Your task to perform on an android device: delete a single message in the gmail app Image 0: 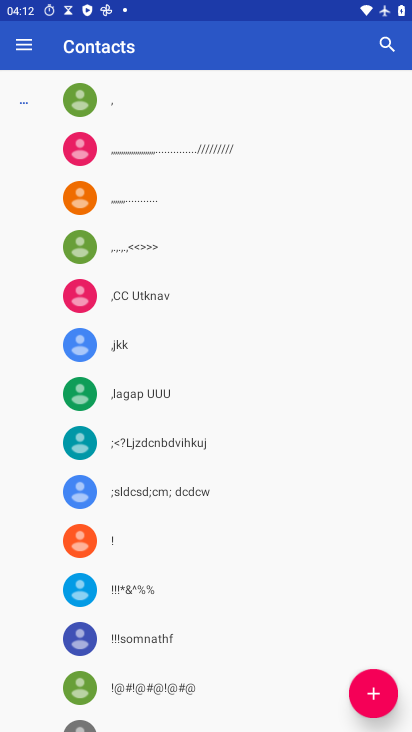
Step 0: press back button
Your task to perform on an android device: delete a single message in the gmail app Image 1: 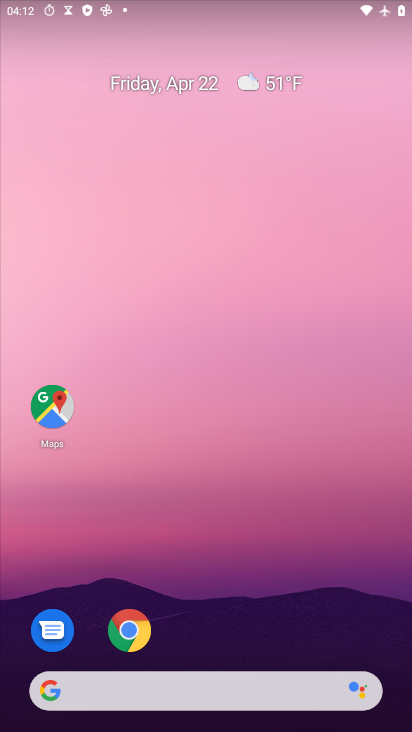
Step 1: drag from (284, 517) to (245, 8)
Your task to perform on an android device: delete a single message in the gmail app Image 2: 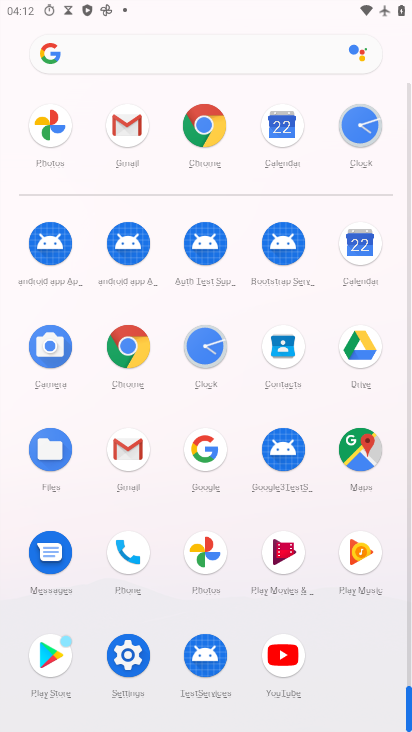
Step 2: drag from (11, 535) to (32, 319)
Your task to perform on an android device: delete a single message in the gmail app Image 3: 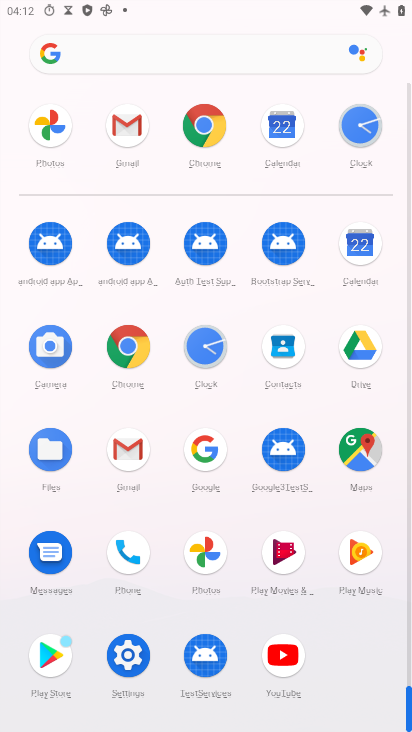
Step 3: click (124, 441)
Your task to perform on an android device: delete a single message in the gmail app Image 4: 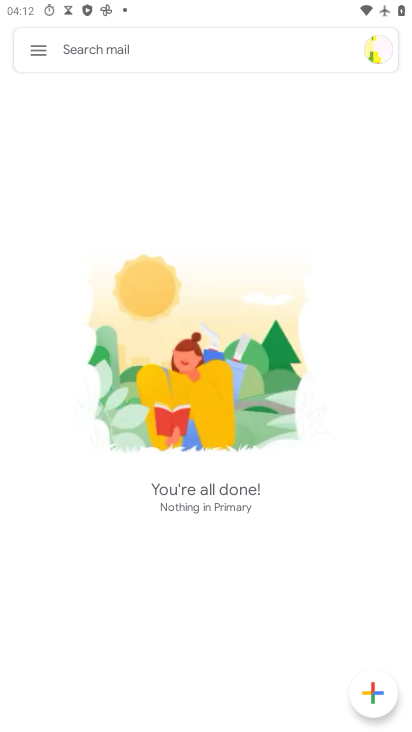
Step 4: click (45, 44)
Your task to perform on an android device: delete a single message in the gmail app Image 5: 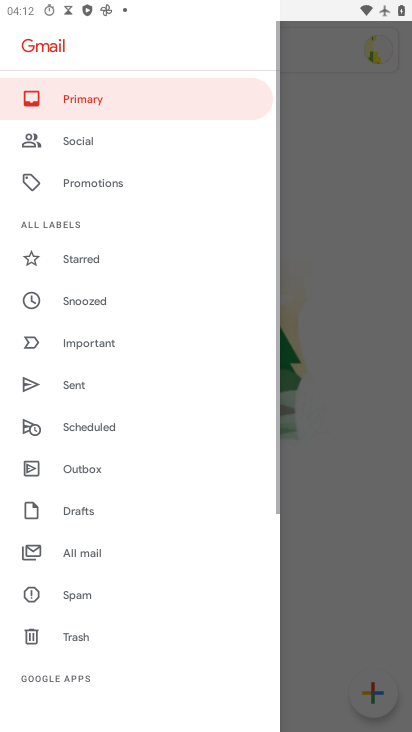
Step 5: drag from (148, 425) to (146, 114)
Your task to perform on an android device: delete a single message in the gmail app Image 6: 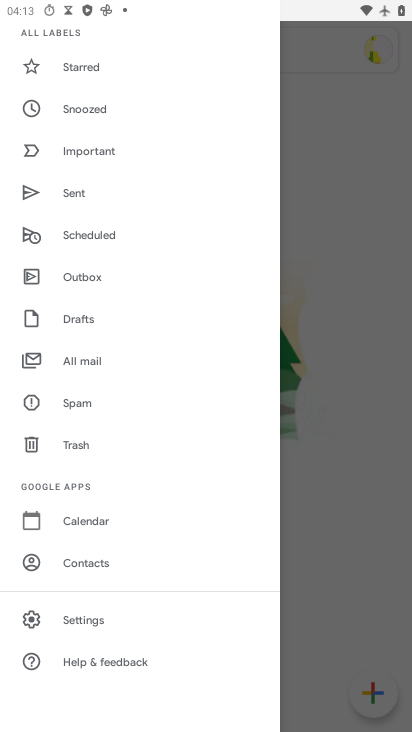
Step 6: click (90, 356)
Your task to perform on an android device: delete a single message in the gmail app Image 7: 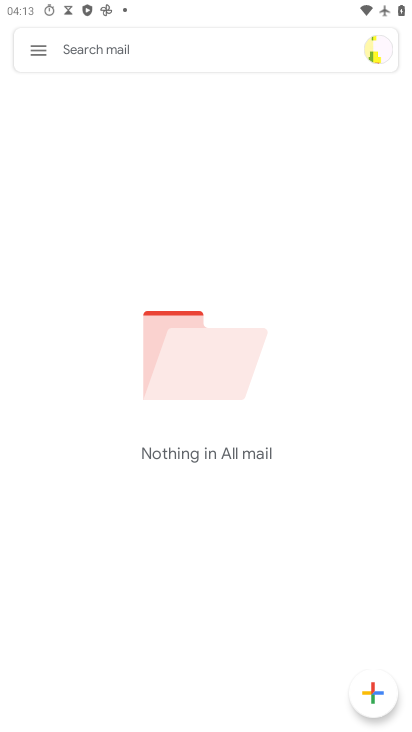
Step 7: click (41, 51)
Your task to perform on an android device: delete a single message in the gmail app Image 8: 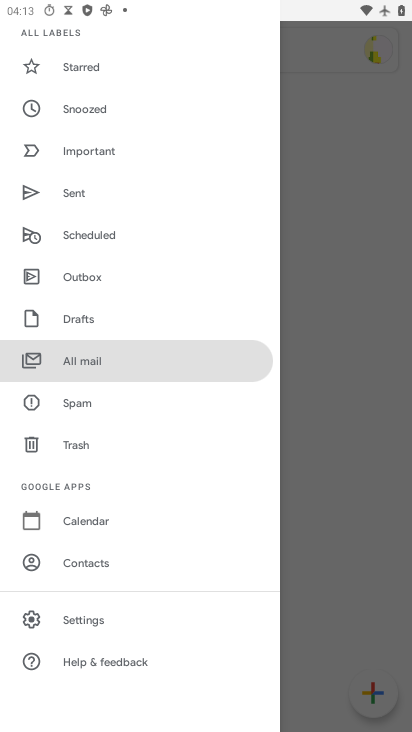
Step 8: drag from (189, 132) to (197, 523)
Your task to perform on an android device: delete a single message in the gmail app Image 9: 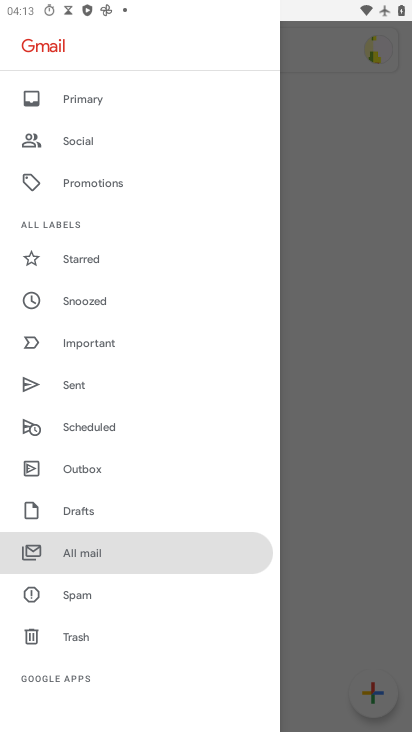
Step 9: drag from (176, 507) to (195, 183)
Your task to perform on an android device: delete a single message in the gmail app Image 10: 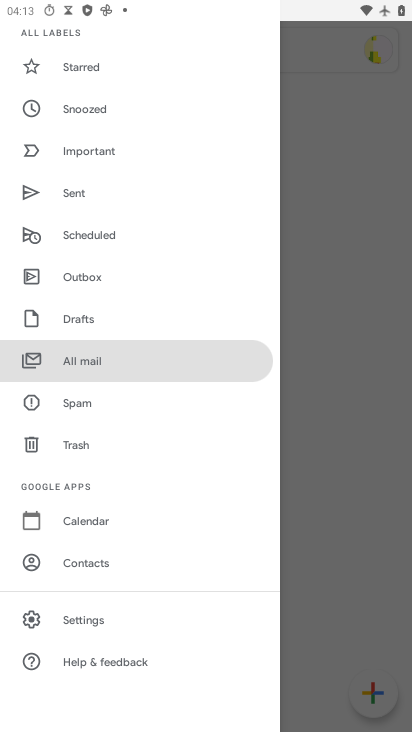
Step 10: drag from (177, 528) to (175, 151)
Your task to perform on an android device: delete a single message in the gmail app Image 11: 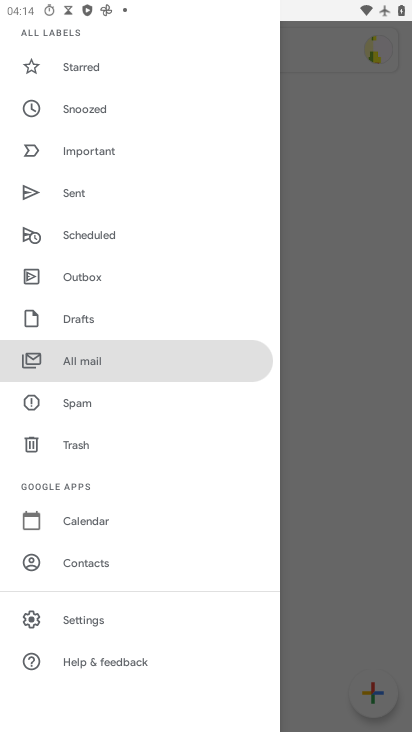
Step 11: drag from (121, 132) to (126, 549)
Your task to perform on an android device: delete a single message in the gmail app Image 12: 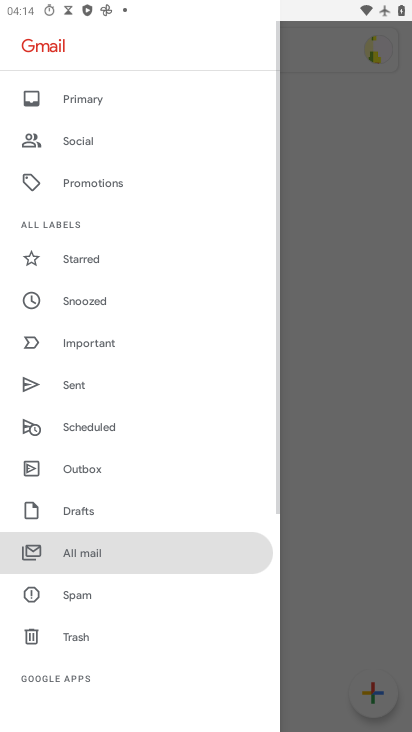
Step 12: click (116, 90)
Your task to perform on an android device: delete a single message in the gmail app Image 13: 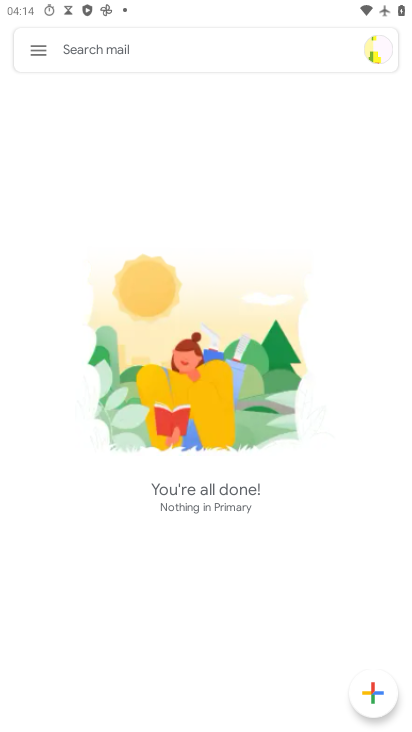
Step 13: click (28, 52)
Your task to perform on an android device: delete a single message in the gmail app Image 14: 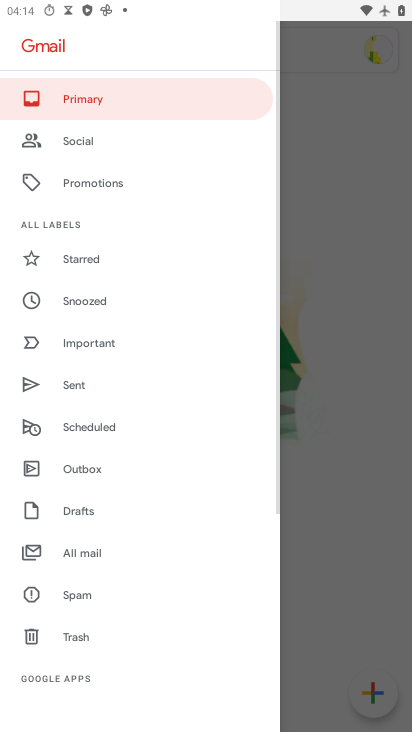
Step 14: task complete